Your task to perform on an android device: manage bookmarks in the chrome app Image 0: 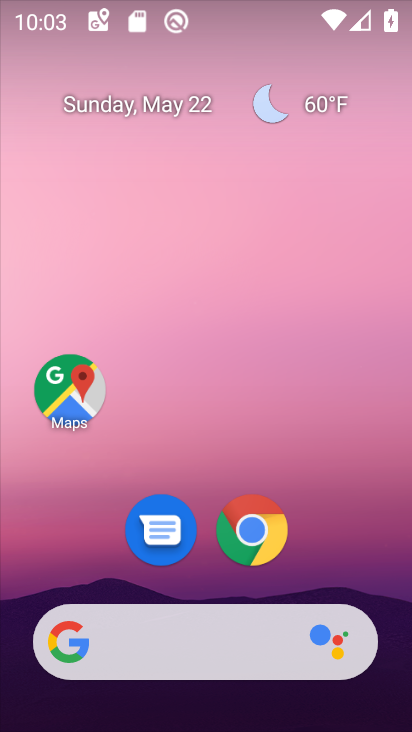
Step 0: click (255, 528)
Your task to perform on an android device: manage bookmarks in the chrome app Image 1: 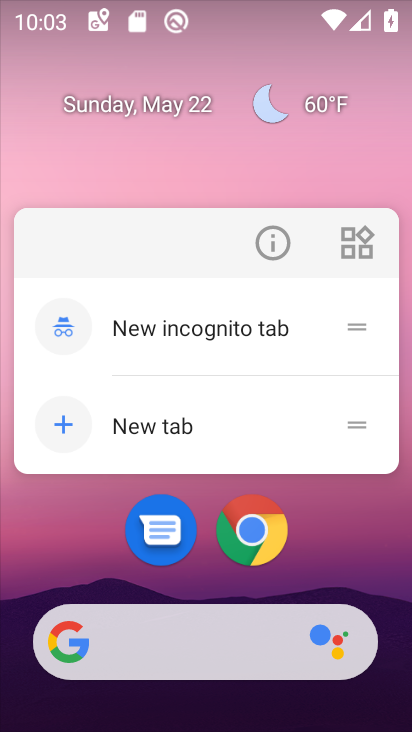
Step 1: click (255, 528)
Your task to perform on an android device: manage bookmarks in the chrome app Image 2: 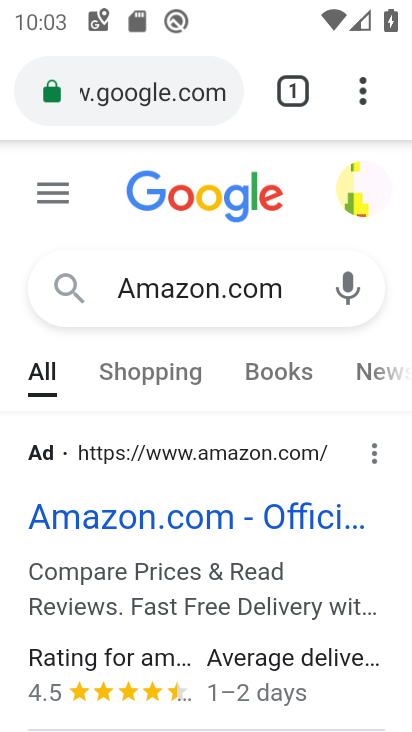
Step 2: click (366, 93)
Your task to perform on an android device: manage bookmarks in the chrome app Image 3: 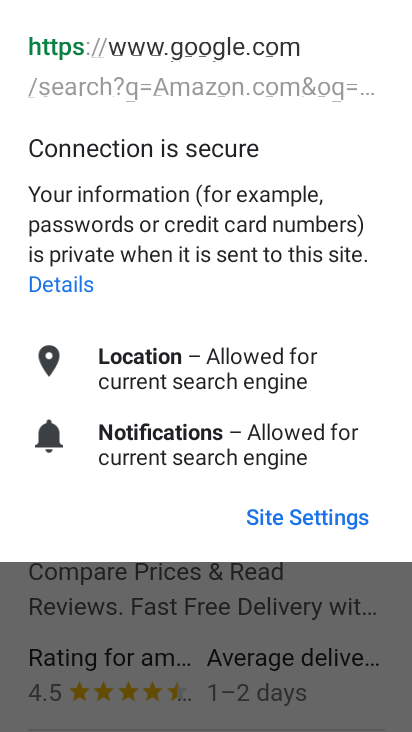
Step 3: press back button
Your task to perform on an android device: manage bookmarks in the chrome app Image 4: 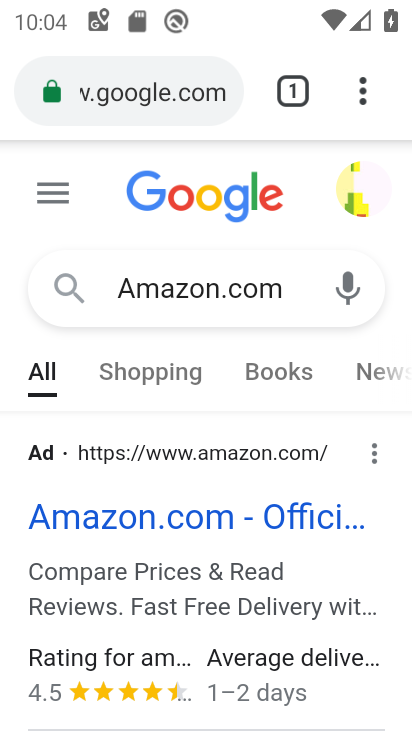
Step 4: click (360, 89)
Your task to perform on an android device: manage bookmarks in the chrome app Image 5: 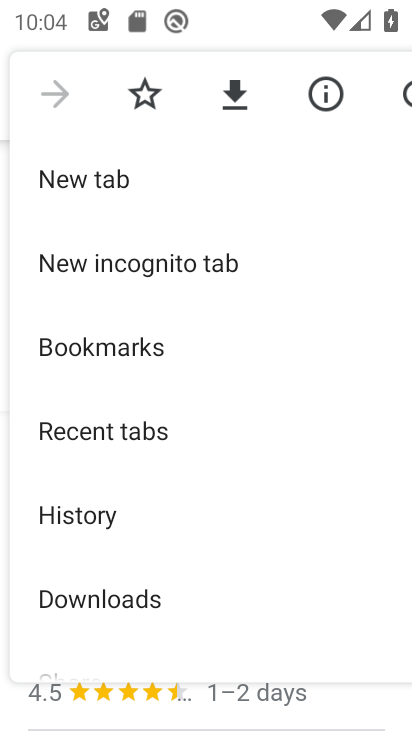
Step 5: click (138, 352)
Your task to perform on an android device: manage bookmarks in the chrome app Image 6: 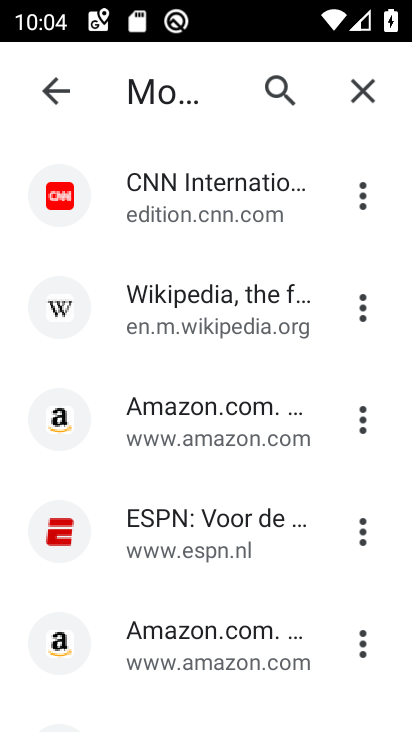
Step 6: click (363, 529)
Your task to perform on an android device: manage bookmarks in the chrome app Image 7: 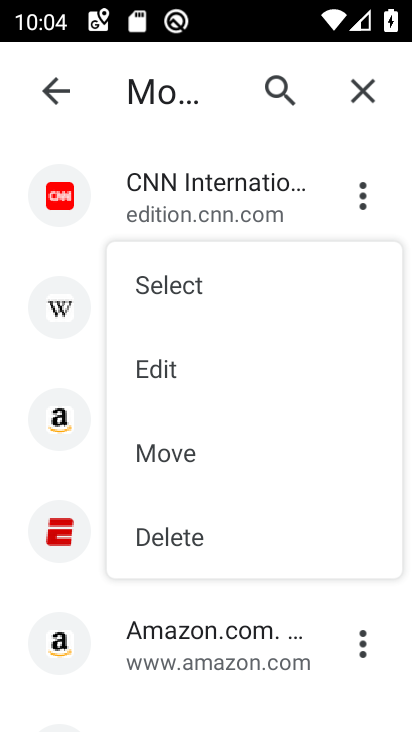
Step 7: click (186, 536)
Your task to perform on an android device: manage bookmarks in the chrome app Image 8: 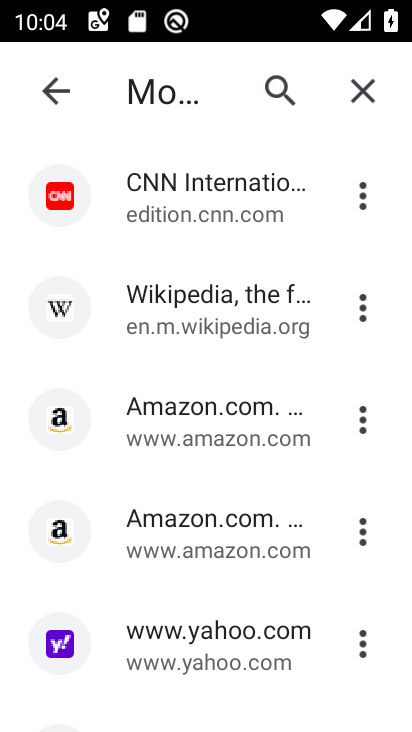
Step 8: task complete